Your task to perform on an android device: manage bookmarks in the chrome app Image 0: 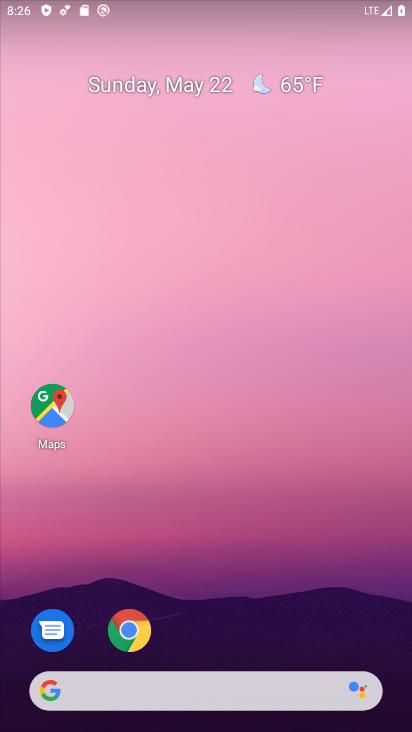
Step 0: press home button
Your task to perform on an android device: manage bookmarks in the chrome app Image 1: 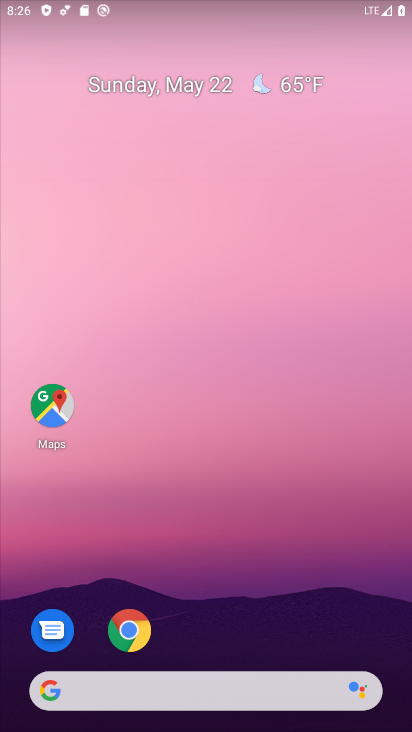
Step 1: click (239, 208)
Your task to perform on an android device: manage bookmarks in the chrome app Image 2: 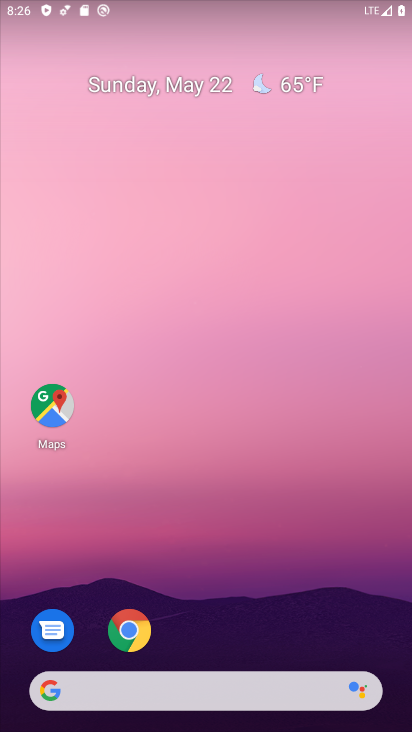
Step 2: click (137, 635)
Your task to perform on an android device: manage bookmarks in the chrome app Image 3: 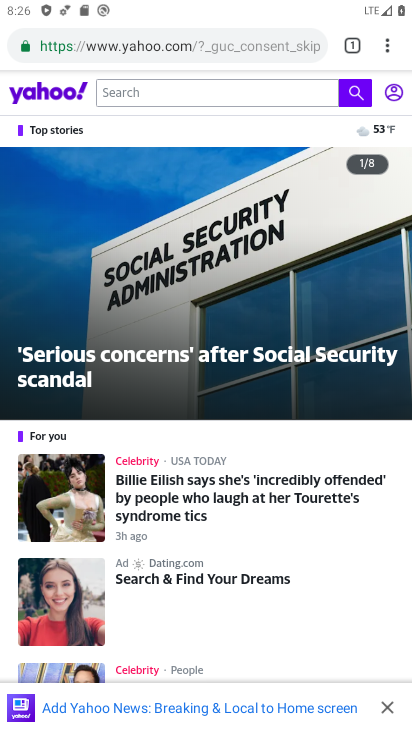
Step 3: drag from (389, 48) to (275, 165)
Your task to perform on an android device: manage bookmarks in the chrome app Image 4: 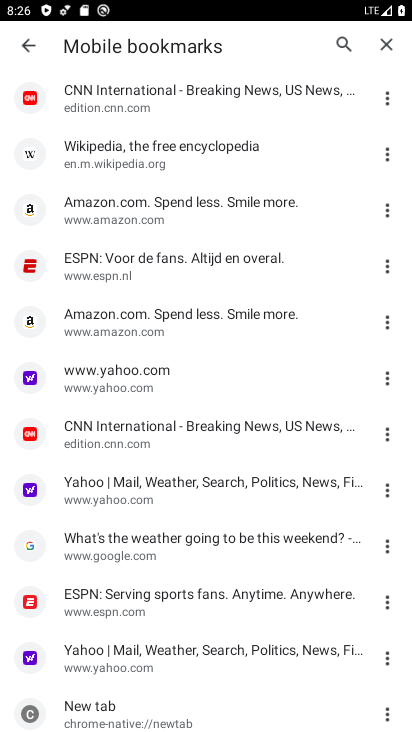
Step 4: click (385, 101)
Your task to perform on an android device: manage bookmarks in the chrome app Image 5: 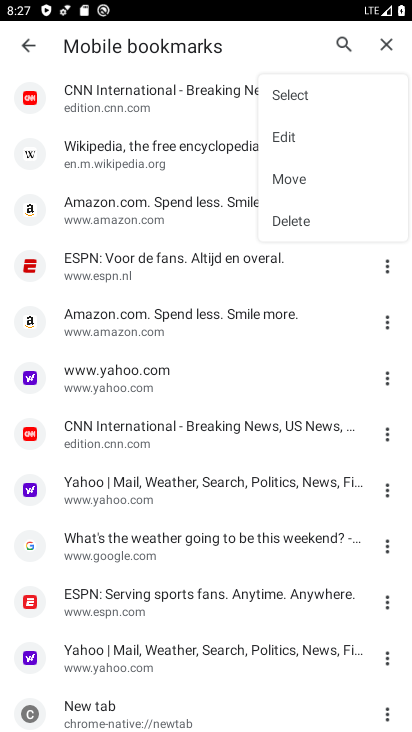
Step 5: click (297, 219)
Your task to perform on an android device: manage bookmarks in the chrome app Image 6: 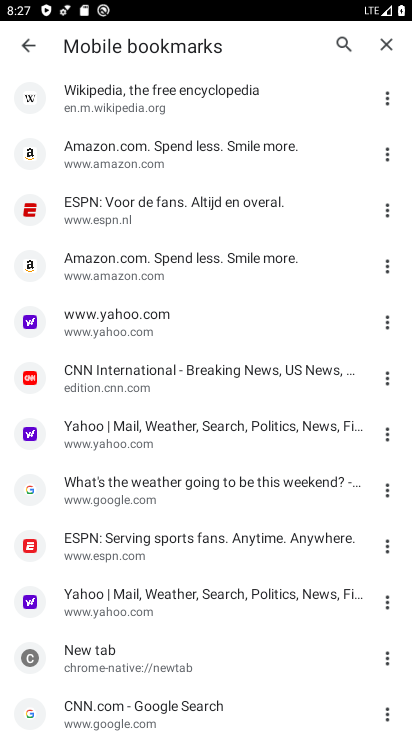
Step 6: task complete